Your task to perform on an android device: What's the weather? Image 0: 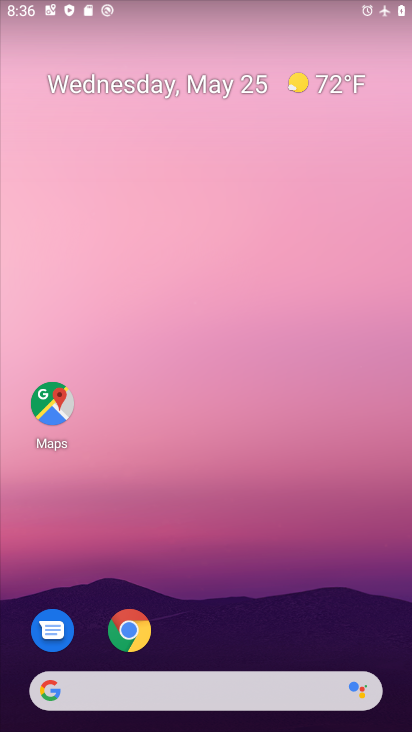
Step 0: drag from (201, 640) to (224, 326)
Your task to perform on an android device: What's the weather? Image 1: 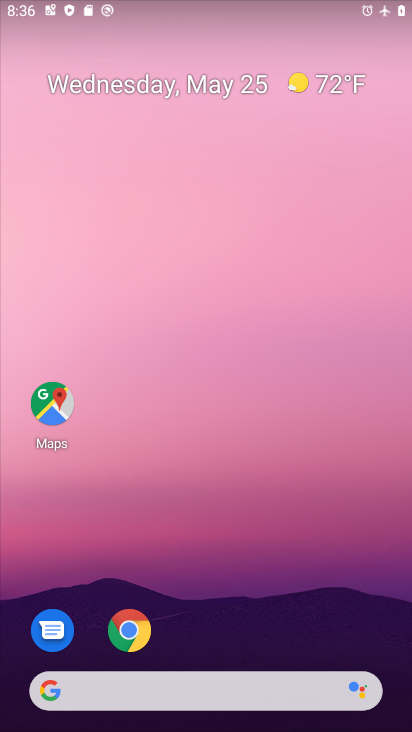
Step 1: drag from (218, 645) to (229, 155)
Your task to perform on an android device: What's the weather? Image 2: 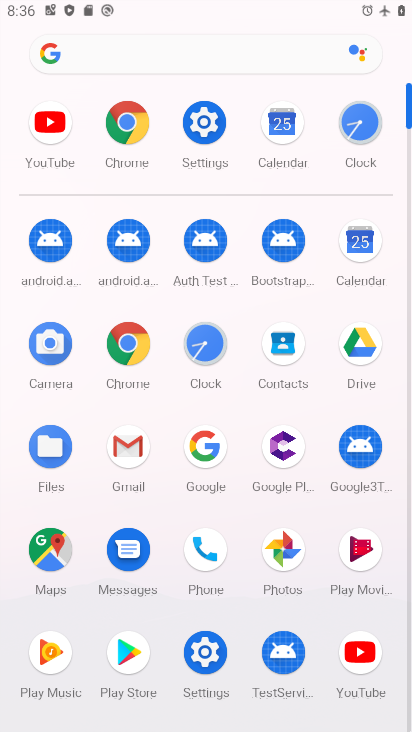
Step 2: click (204, 469)
Your task to perform on an android device: What's the weather? Image 3: 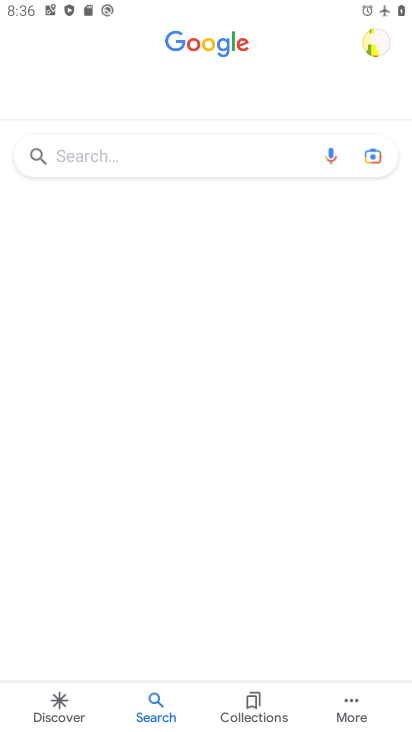
Step 3: click (189, 143)
Your task to perform on an android device: What's the weather? Image 4: 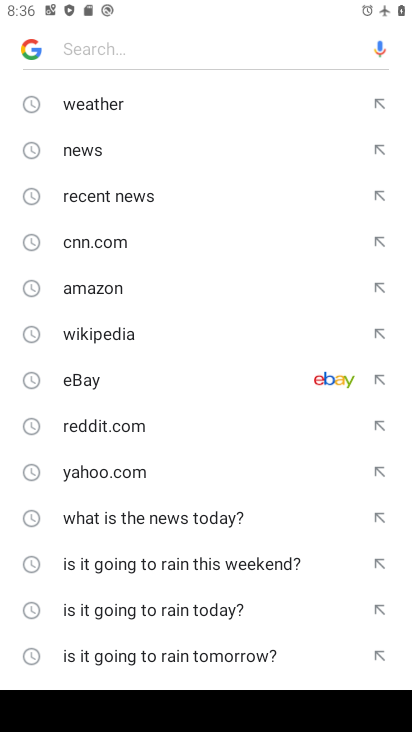
Step 4: click (104, 106)
Your task to perform on an android device: What's the weather? Image 5: 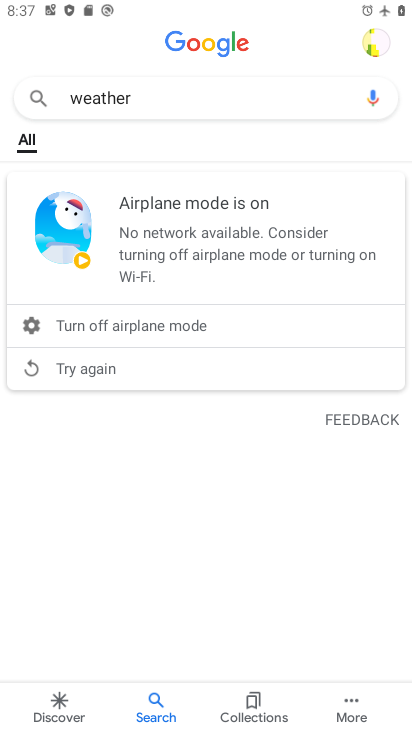
Step 5: task complete